Your task to perform on an android device: move a message to another label in the gmail app Image 0: 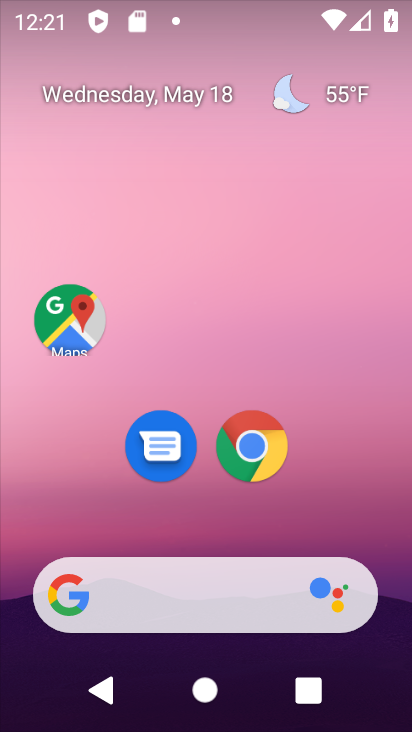
Step 0: drag from (182, 537) to (252, 0)
Your task to perform on an android device: move a message to another label in the gmail app Image 1: 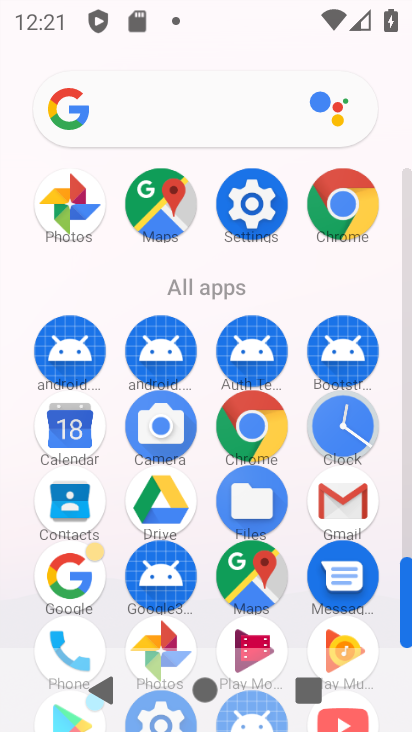
Step 1: click (351, 506)
Your task to perform on an android device: move a message to another label in the gmail app Image 2: 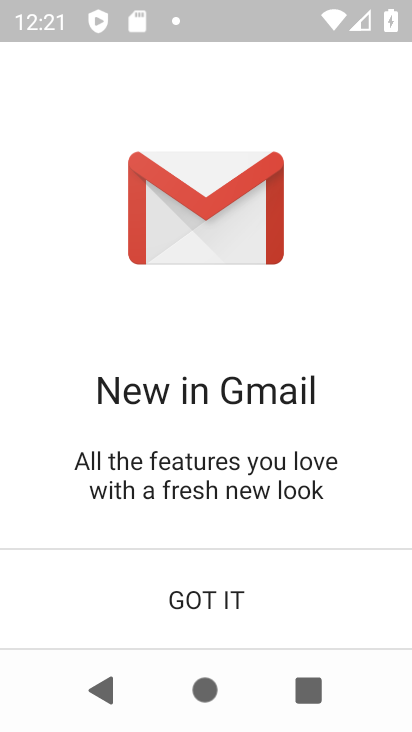
Step 2: click (213, 607)
Your task to perform on an android device: move a message to another label in the gmail app Image 3: 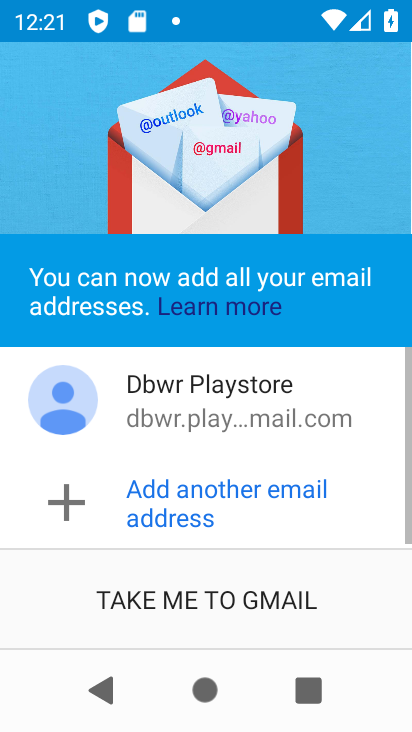
Step 3: click (213, 607)
Your task to perform on an android device: move a message to another label in the gmail app Image 4: 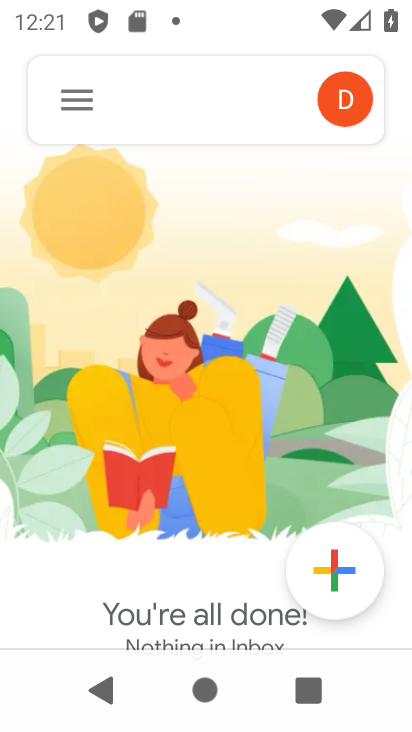
Step 4: click (83, 95)
Your task to perform on an android device: move a message to another label in the gmail app Image 5: 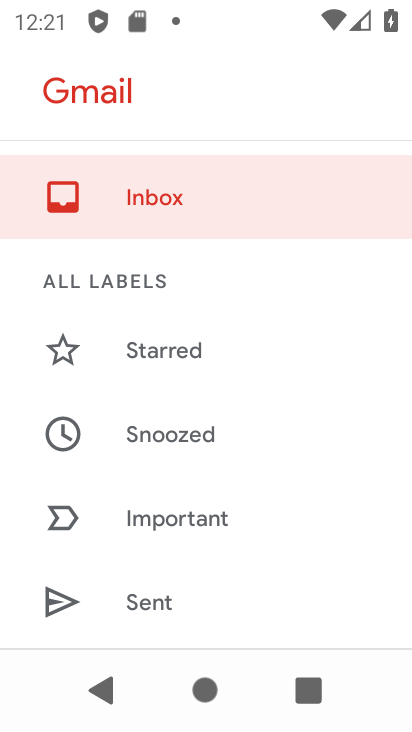
Step 5: drag from (181, 515) to (282, 165)
Your task to perform on an android device: move a message to another label in the gmail app Image 6: 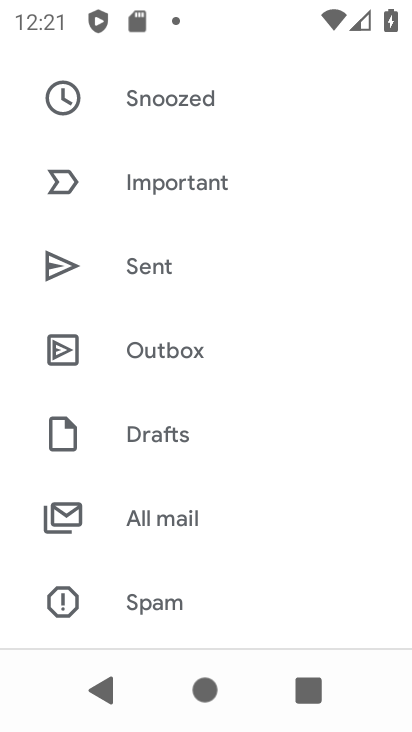
Step 6: click (204, 519)
Your task to perform on an android device: move a message to another label in the gmail app Image 7: 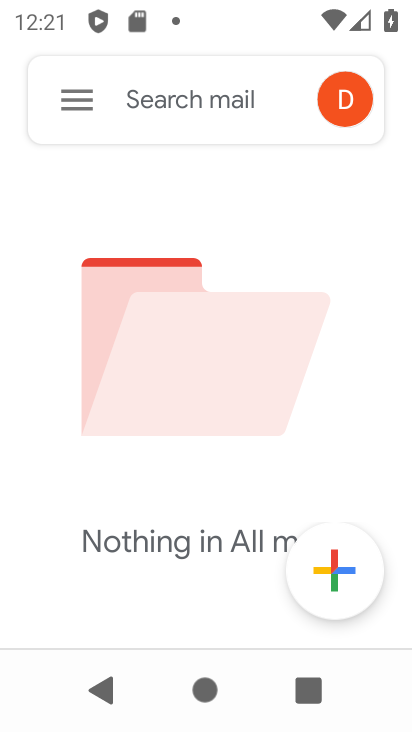
Step 7: task complete